Your task to perform on an android device: read, delete, or share a saved page in the chrome app Image 0: 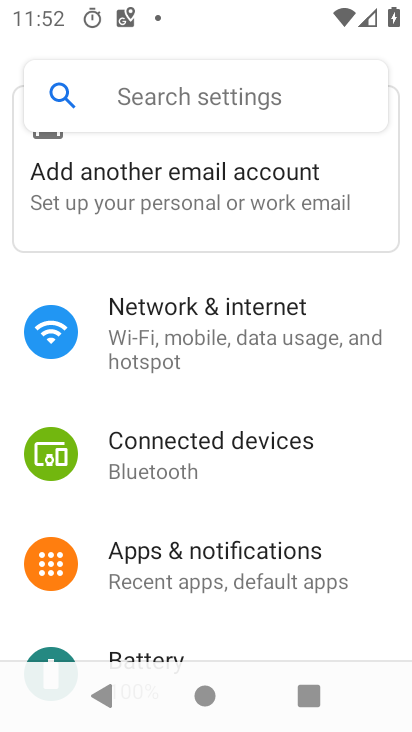
Step 0: press home button
Your task to perform on an android device: read, delete, or share a saved page in the chrome app Image 1: 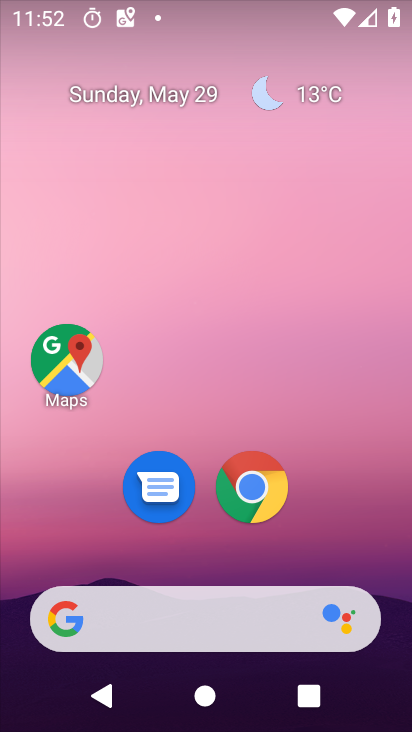
Step 1: click (254, 476)
Your task to perform on an android device: read, delete, or share a saved page in the chrome app Image 2: 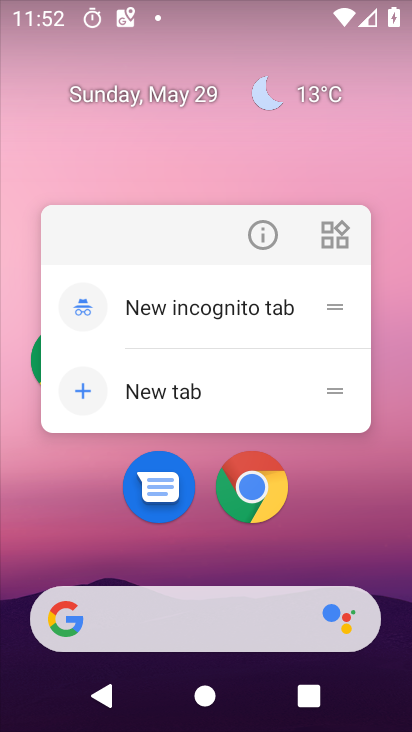
Step 2: click (254, 477)
Your task to perform on an android device: read, delete, or share a saved page in the chrome app Image 3: 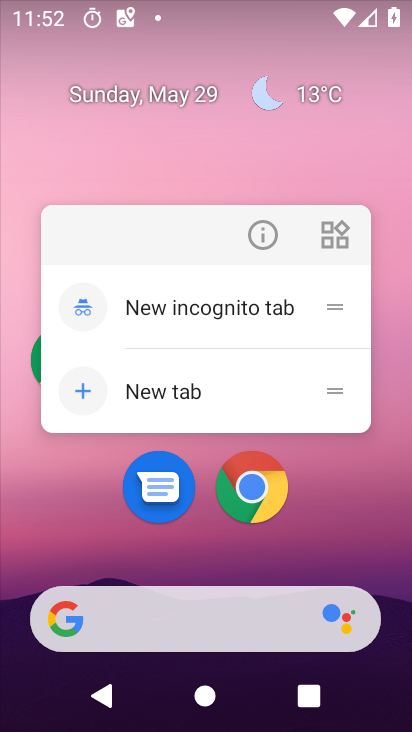
Step 3: click (254, 477)
Your task to perform on an android device: read, delete, or share a saved page in the chrome app Image 4: 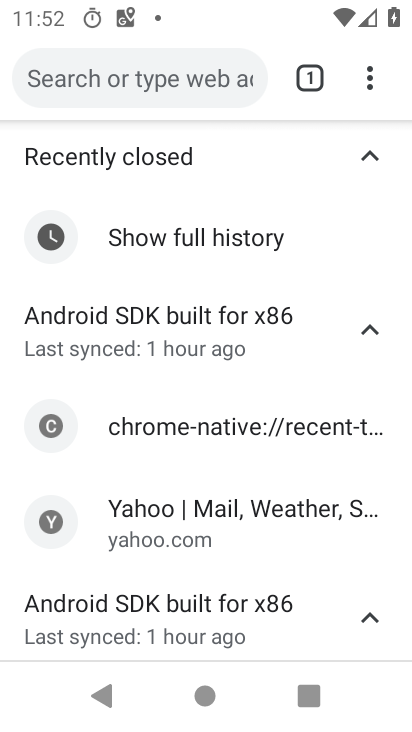
Step 4: click (366, 73)
Your task to perform on an android device: read, delete, or share a saved page in the chrome app Image 5: 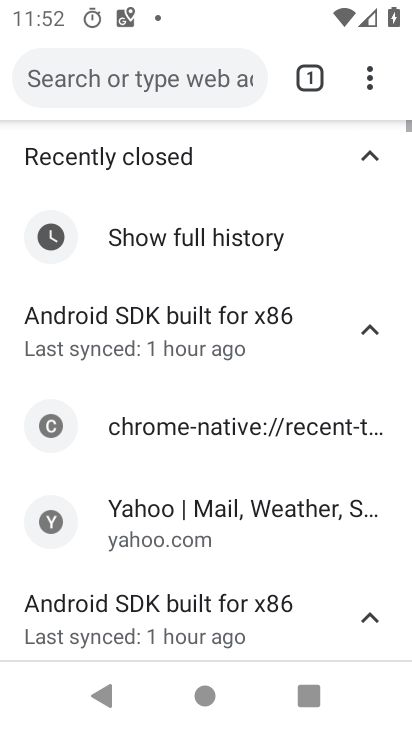
Step 5: click (366, 73)
Your task to perform on an android device: read, delete, or share a saved page in the chrome app Image 6: 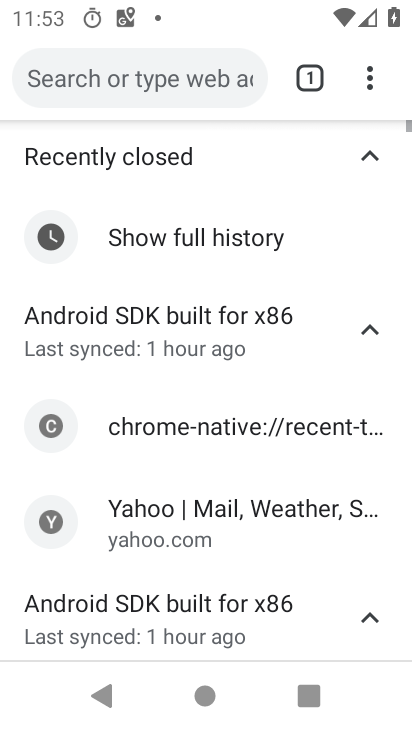
Step 6: click (366, 73)
Your task to perform on an android device: read, delete, or share a saved page in the chrome app Image 7: 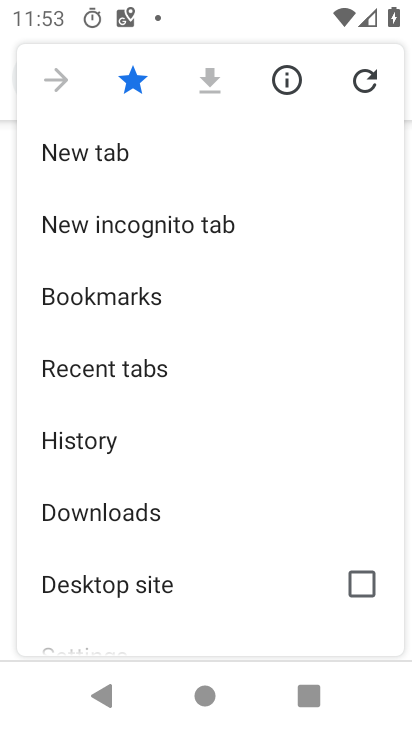
Step 7: click (51, 508)
Your task to perform on an android device: read, delete, or share a saved page in the chrome app Image 8: 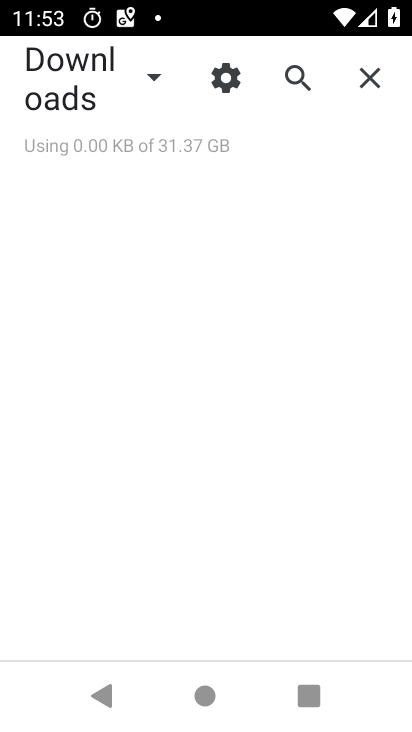
Step 8: task complete